Your task to perform on an android device: Go to Yahoo.com Image 0: 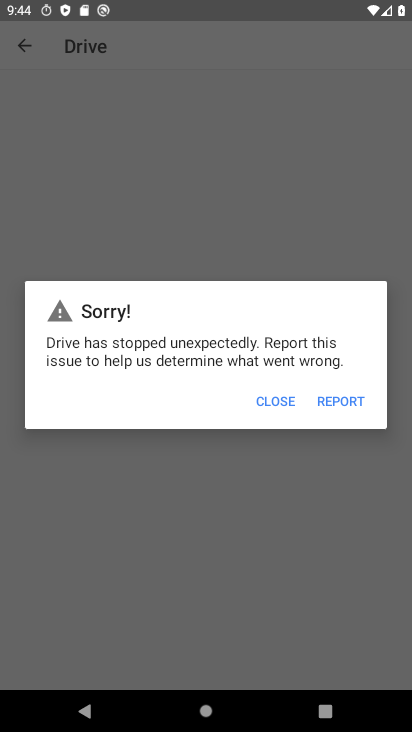
Step 0: click (264, 397)
Your task to perform on an android device: Go to Yahoo.com Image 1: 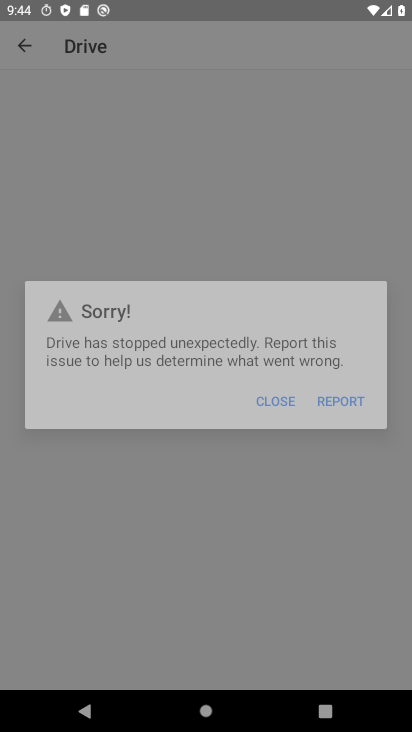
Step 1: click (265, 397)
Your task to perform on an android device: Go to Yahoo.com Image 2: 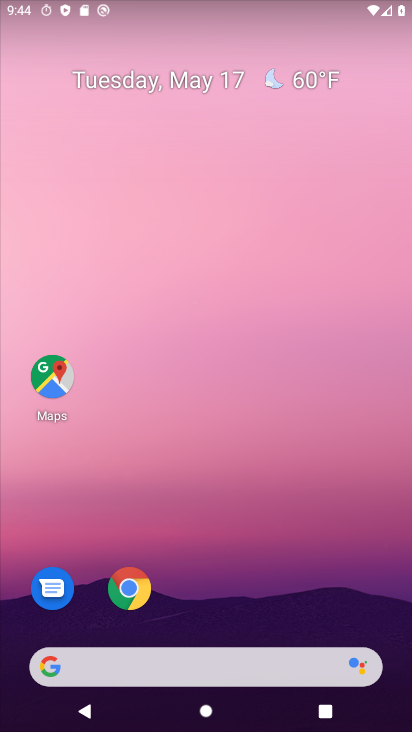
Step 2: drag from (262, 653) to (172, 55)
Your task to perform on an android device: Go to Yahoo.com Image 3: 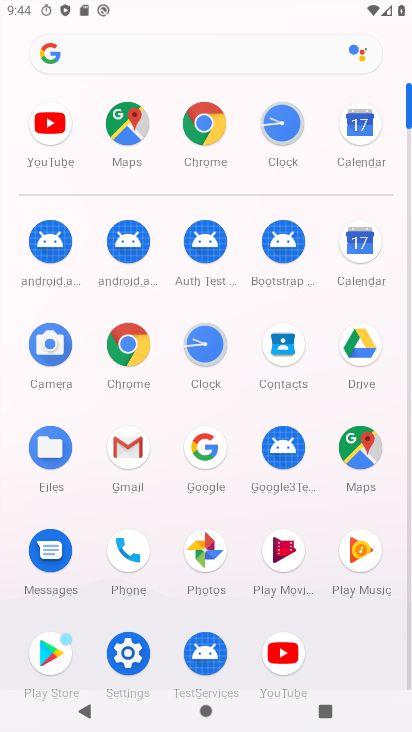
Step 3: click (189, 121)
Your task to perform on an android device: Go to Yahoo.com Image 4: 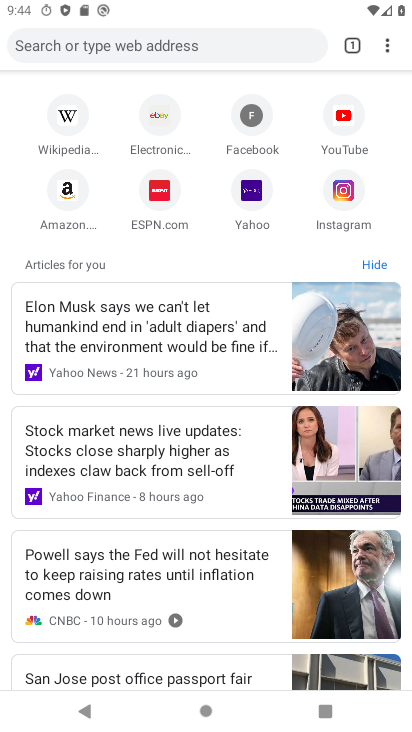
Step 4: click (246, 191)
Your task to perform on an android device: Go to Yahoo.com Image 5: 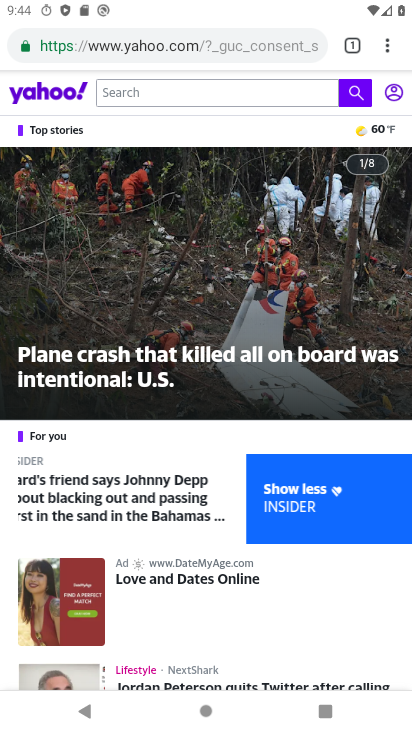
Step 5: task complete